Your task to perform on an android device: make emails show in primary in the gmail app Image 0: 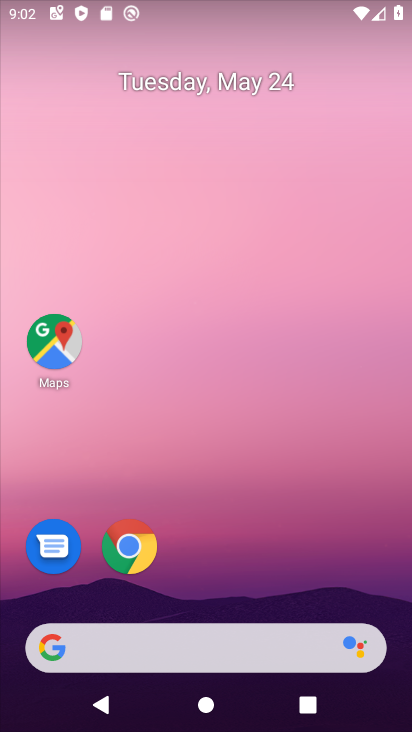
Step 0: drag from (183, 597) to (272, 158)
Your task to perform on an android device: make emails show in primary in the gmail app Image 1: 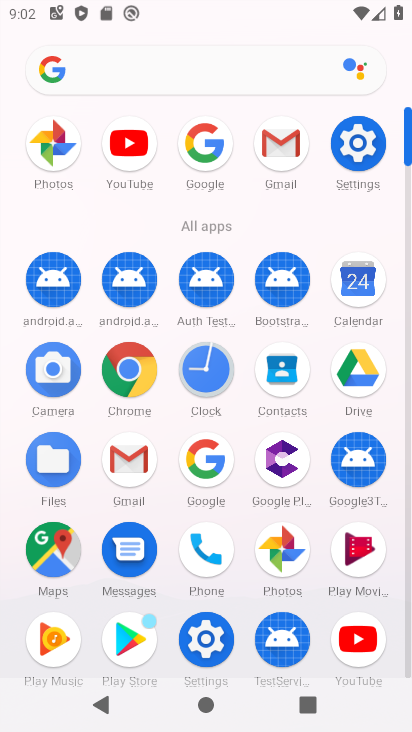
Step 1: click (287, 146)
Your task to perform on an android device: make emails show in primary in the gmail app Image 2: 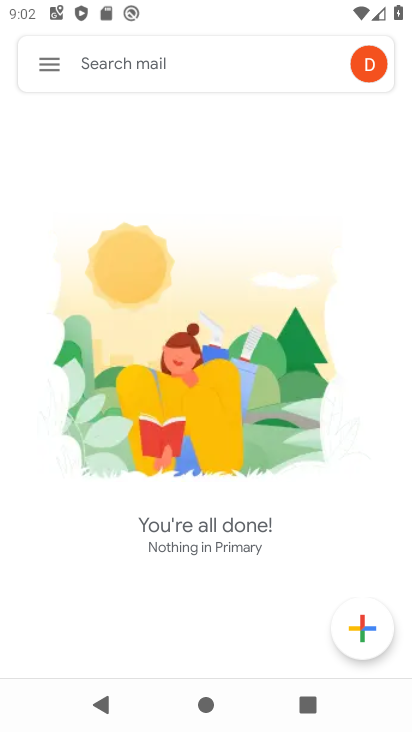
Step 2: click (47, 70)
Your task to perform on an android device: make emails show in primary in the gmail app Image 3: 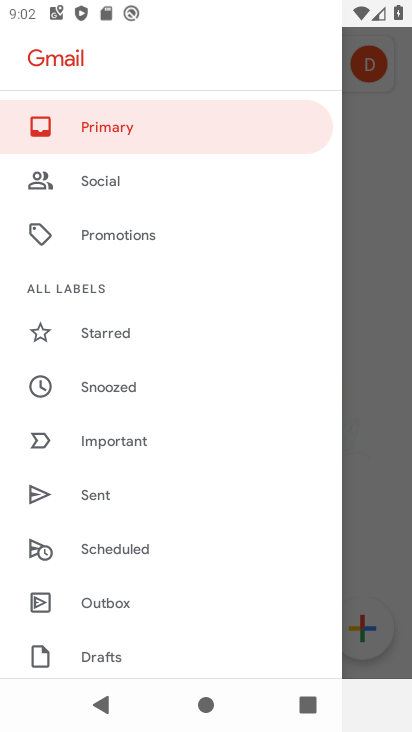
Step 3: task complete